Your task to perform on an android device: Go to Yahoo.com Image 0: 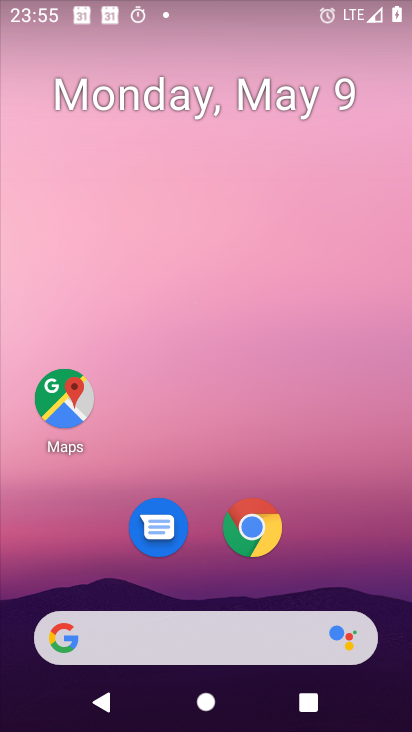
Step 0: click (251, 525)
Your task to perform on an android device: Go to Yahoo.com Image 1: 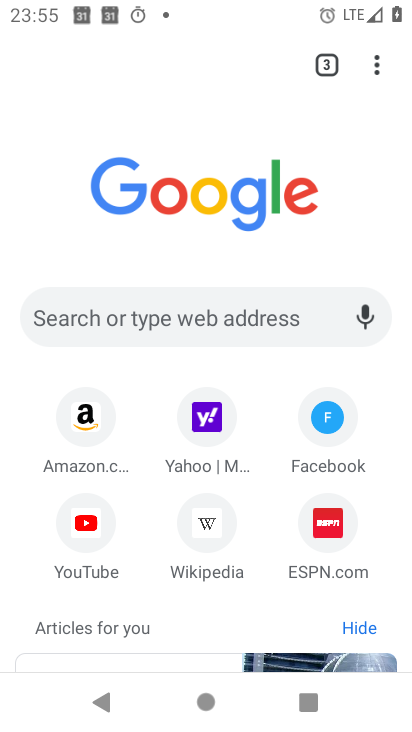
Step 1: click (214, 419)
Your task to perform on an android device: Go to Yahoo.com Image 2: 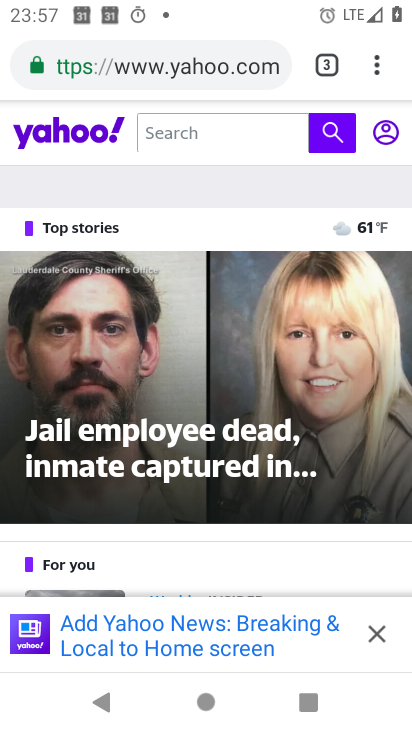
Step 2: task complete